Your task to perform on an android device: When is my next meeting? Image 0: 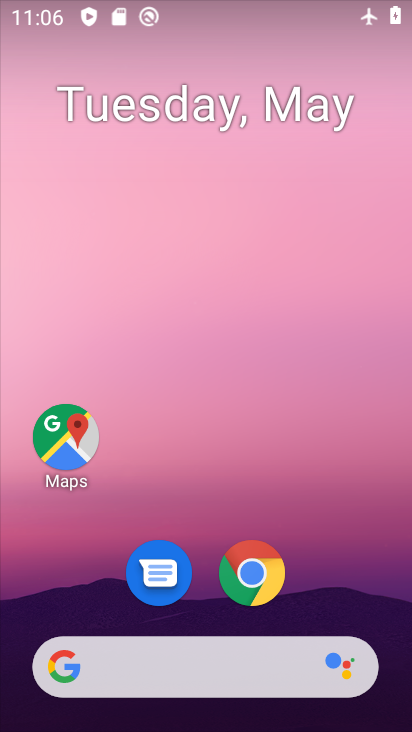
Step 0: drag from (200, 622) to (185, 324)
Your task to perform on an android device: When is my next meeting? Image 1: 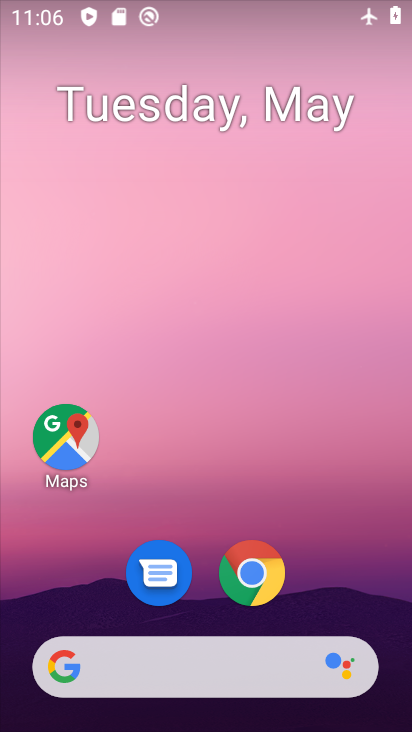
Step 1: drag from (175, 649) to (168, 243)
Your task to perform on an android device: When is my next meeting? Image 2: 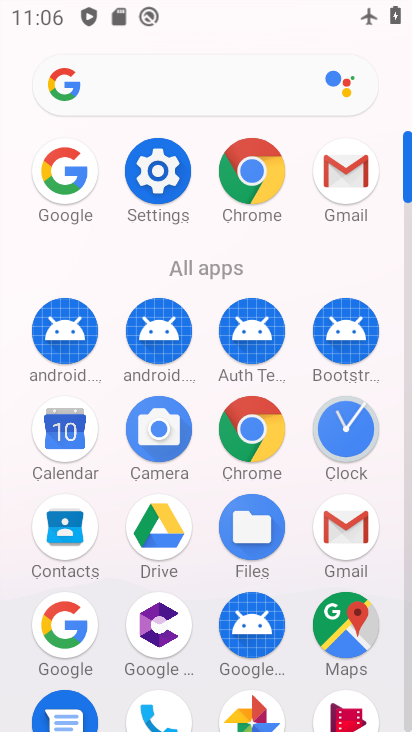
Step 2: click (72, 429)
Your task to perform on an android device: When is my next meeting? Image 3: 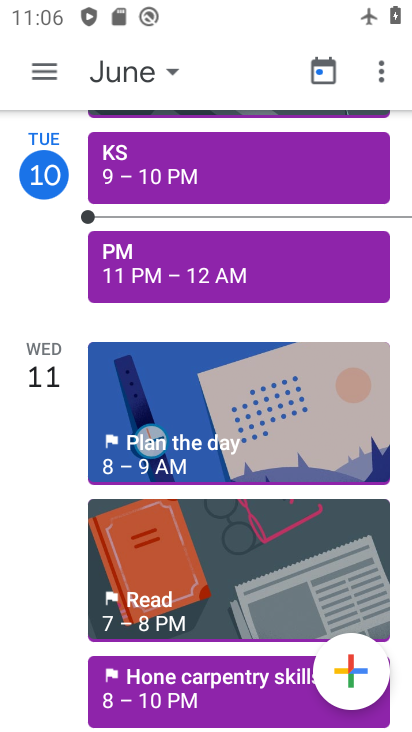
Step 3: drag from (163, 704) to (163, 386)
Your task to perform on an android device: When is my next meeting? Image 4: 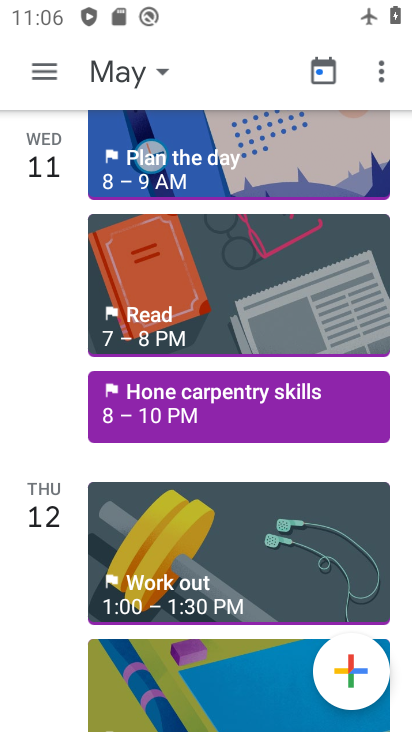
Step 4: click (137, 332)
Your task to perform on an android device: When is my next meeting? Image 5: 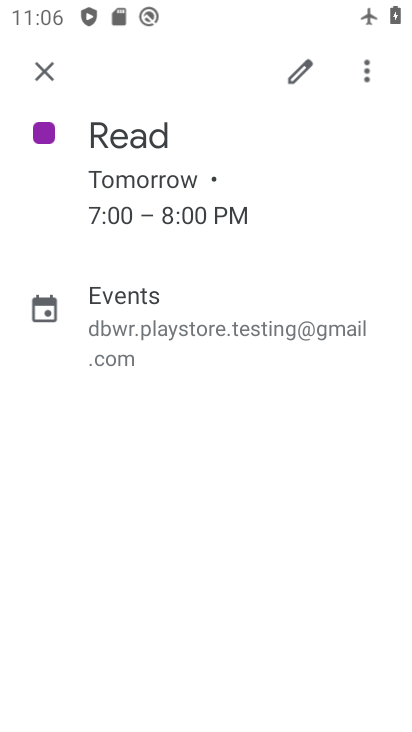
Step 5: task complete